Your task to perform on an android device: Go to eBay Image 0: 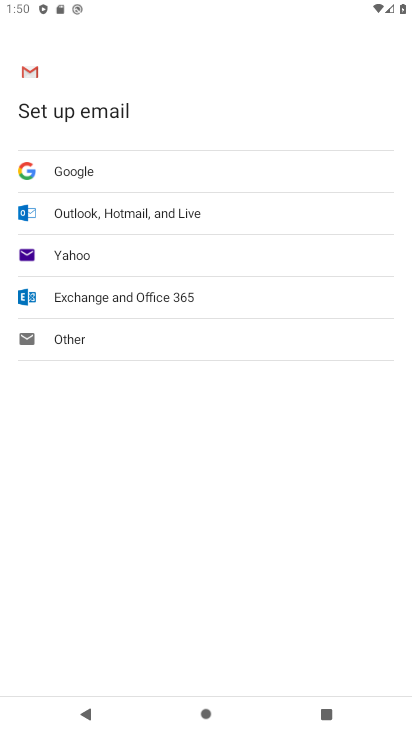
Step 0: press back button
Your task to perform on an android device: Go to eBay Image 1: 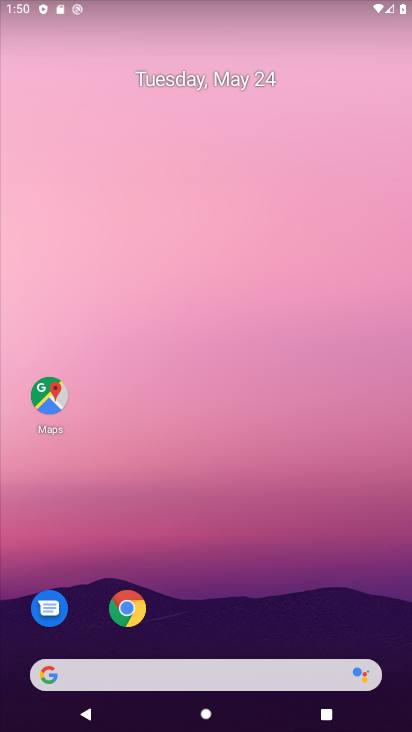
Step 1: drag from (268, 595) to (222, 115)
Your task to perform on an android device: Go to eBay Image 2: 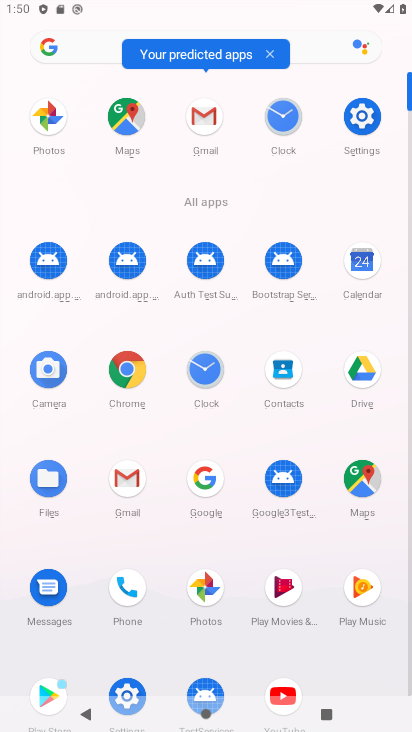
Step 2: drag from (6, 535) to (0, 169)
Your task to perform on an android device: Go to eBay Image 3: 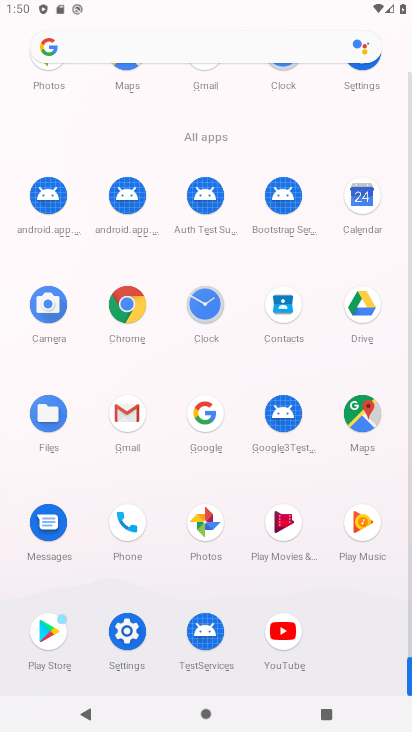
Step 3: click (122, 302)
Your task to perform on an android device: Go to eBay Image 4: 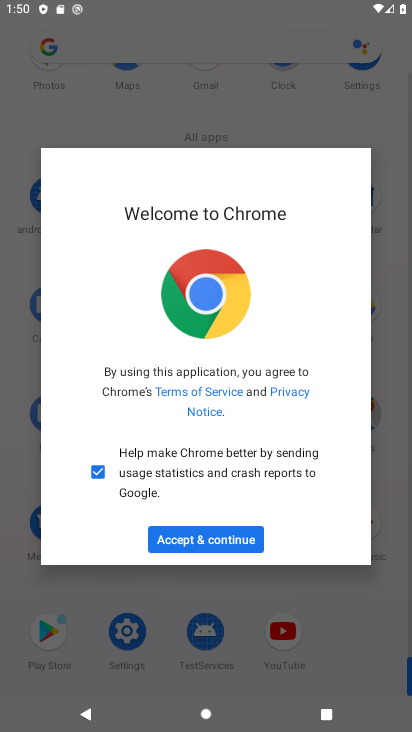
Step 4: click (217, 526)
Your task to perform on an android device: Go to eBay Image 5: 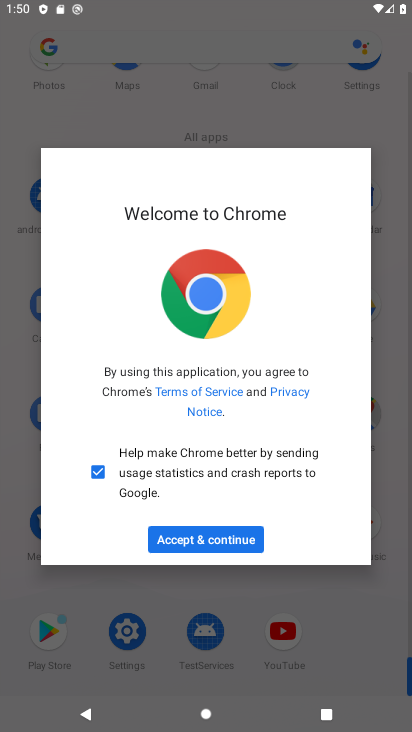
Step 5: click (213, 536)
Your task to perform on an android device: Go to eBay Image 6: 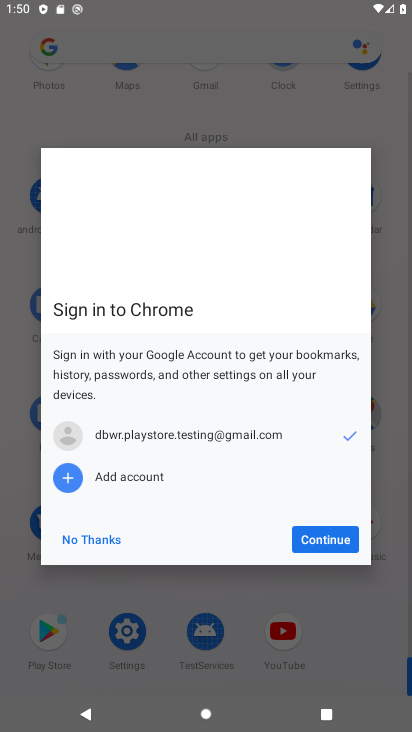
Step 6: click (314, 534)
Your task to perform on an android device: Go to eBay Image 7: 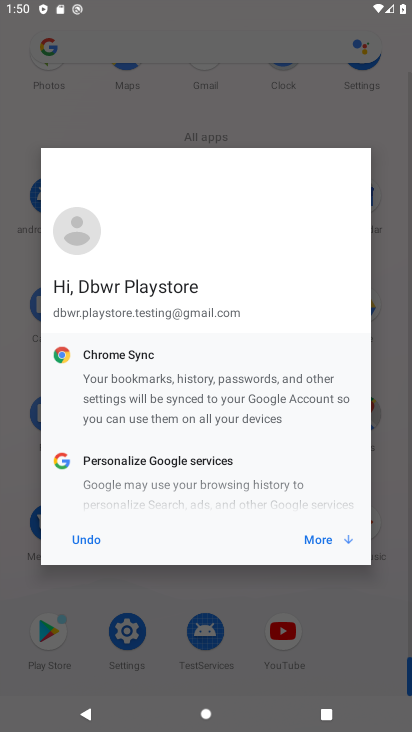
Step 7: click (314, 534)
Your task to perform on an android device: Go to eBay Image 8: 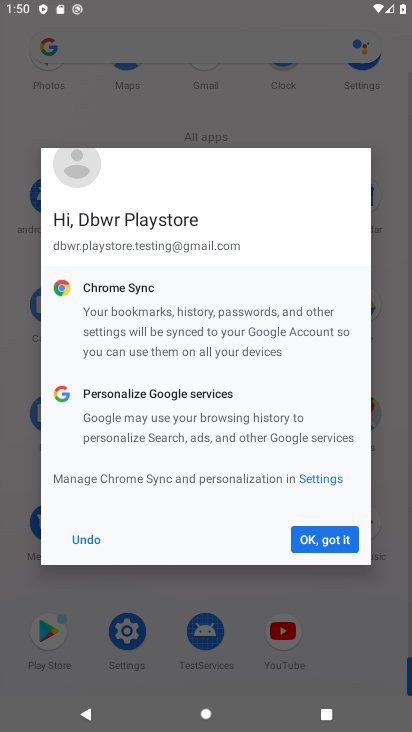
Step 8: click (314, 534)
Your task to perform on an android device: Go to eBay Image 9: 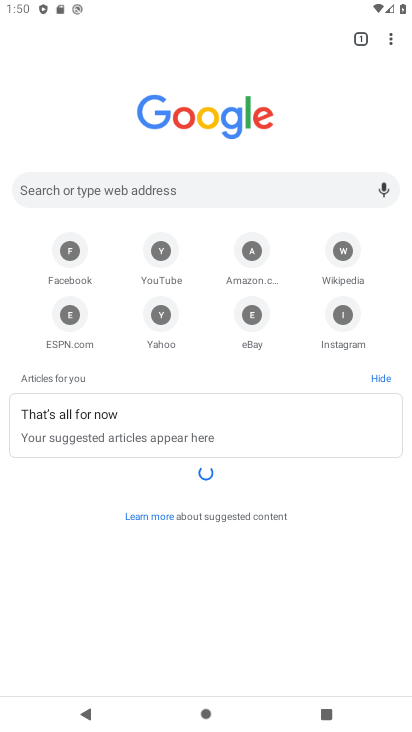
Step 9: click (129, 191)
Your task to perform on an android device: Go to eBay Image 10: 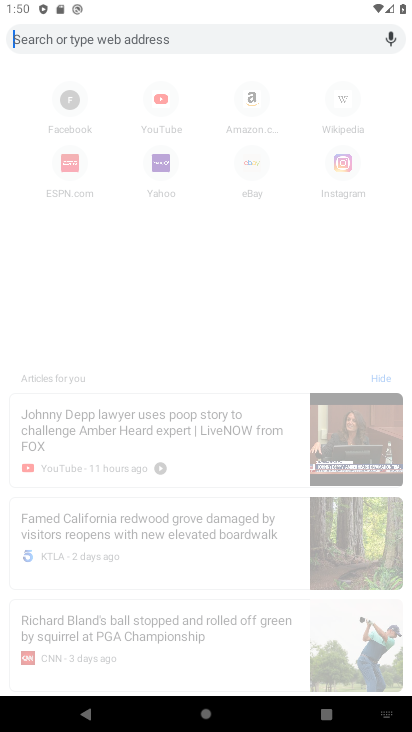
Step 10: click (256, 169)
Your task to perform on an android device: Go to eBay Image 11: 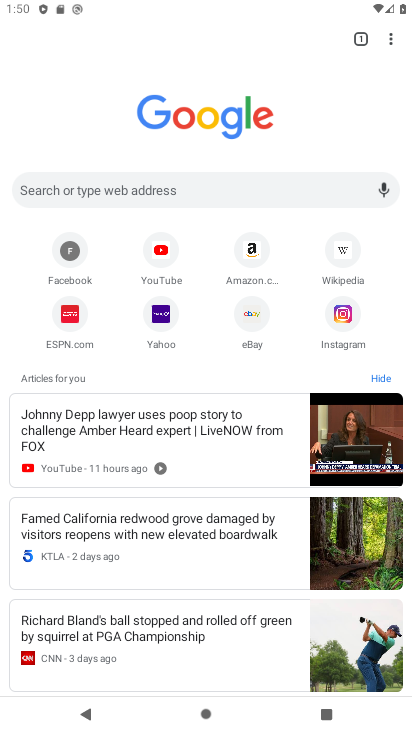
Step 11: click (237, 311)
Your task to perform on an android device: Go to eBay Image 12: 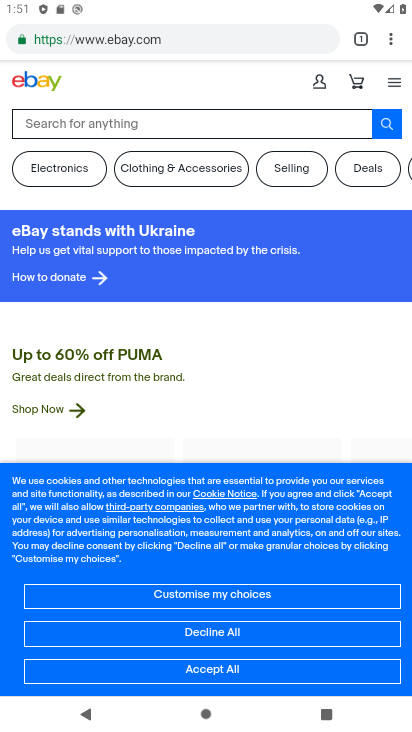
Step 12: task complete